Your task to perform on an android device: Show me productivity apps on the Play Store Image 0: 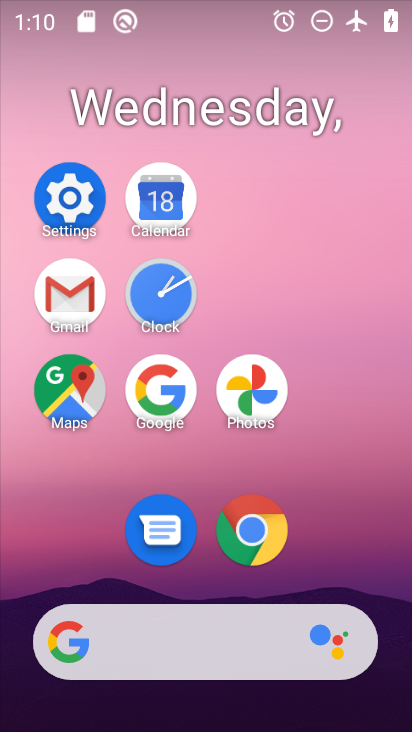
Step 0: drag from (352, 404) to (371, 124)
Your task to perform on an android device: Show me productivity apps on the Play Store Image 1: 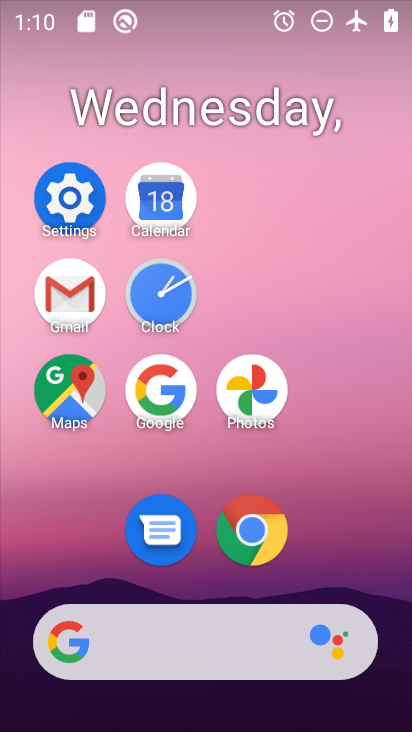
Step 1: drag from (315, 537) to (334, 141)
Your task to perform on an android device: Show me productivity apps on the Play Store Image 2: 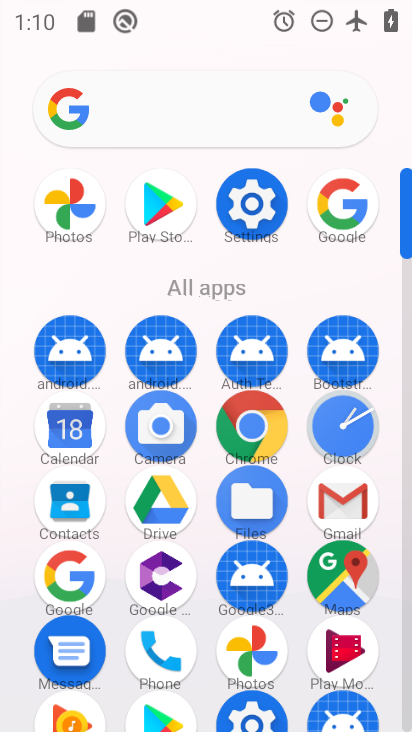
Step 2: drag from (282, 618) to (351, 88)
Your task to perform on an android device: Show me productivity apps on the Play Store Image 3: 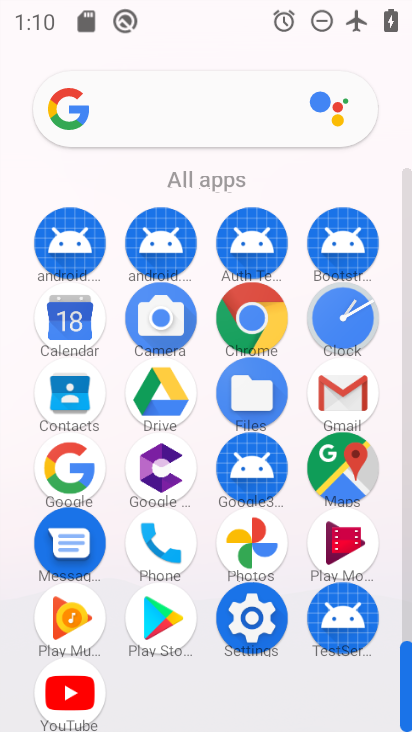
Step 3: click (156, 607)
Your task to perform on an android device: Show me productivity apps on the Play Store Image 4: 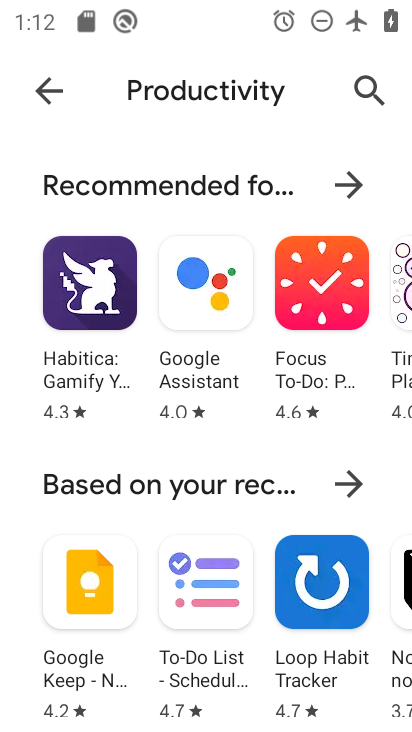
Step 4: task complete